Your task to perform on an android device: What's on my calendar today? Image 0: 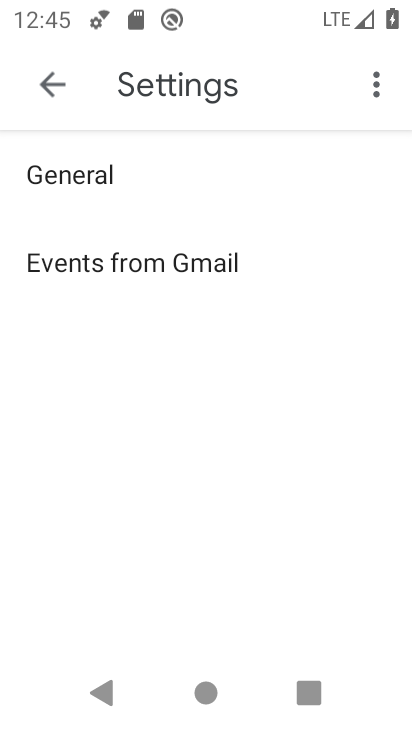
Step 0: press home button
Your task to perform on an android device: What's on my calendar today? Image 1: 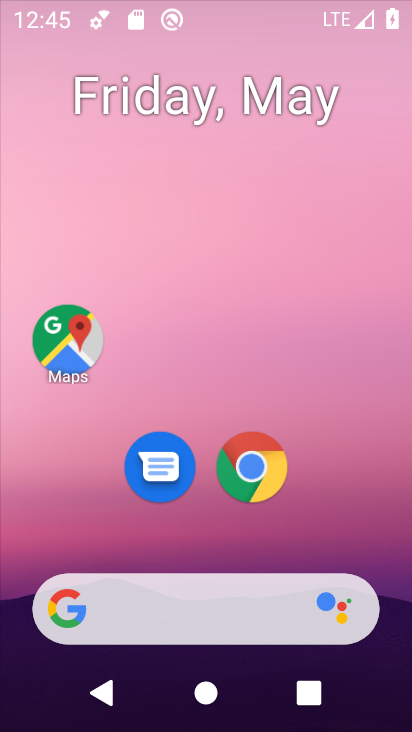
Step 1: drag from (361, 582) to (405, 66)
Your task to perform on an android device: What's on my calendar today? Image 2: 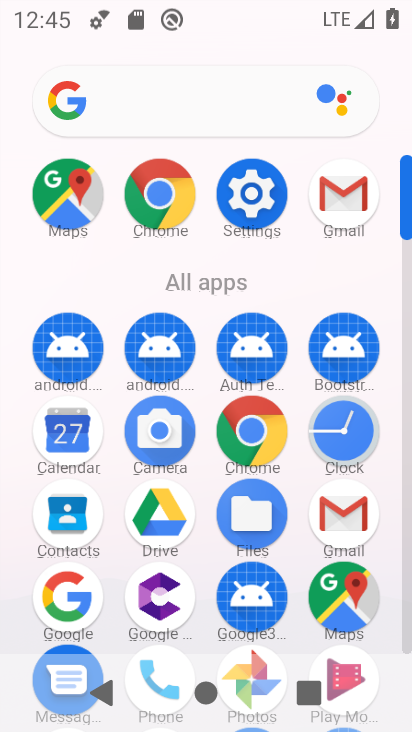
Step 2: click (82, 434)
Your task to perform on an android device: What's on my calendar today? Image 3: 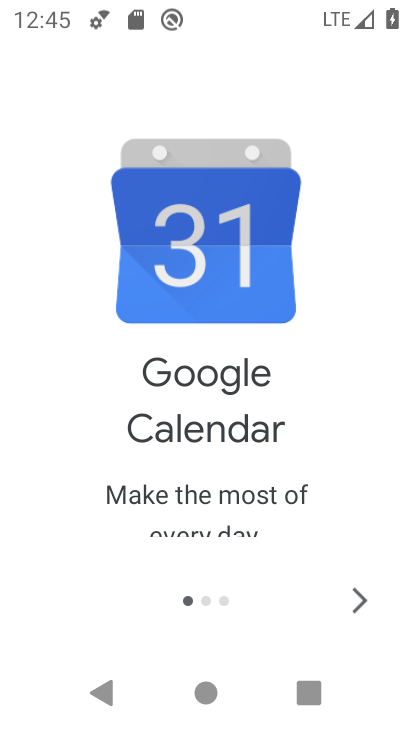
Step 3: click (362, 582)
Your task to perform on an android device: What's on my calendar today? Image 4: 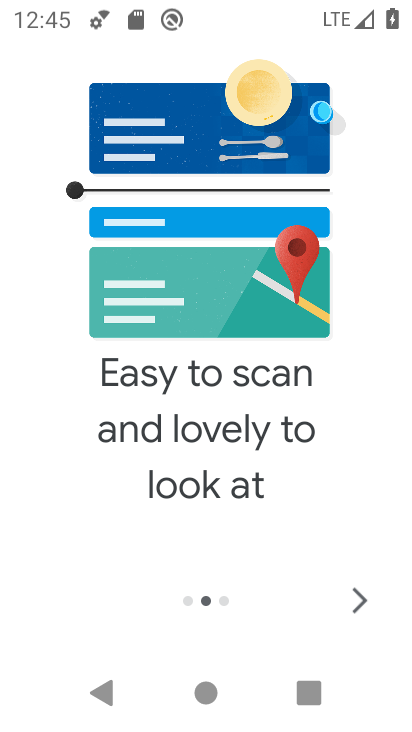
Step 4: click (374, 603)
Your task to perform on an android device: What's on my calendar today? Image 5: 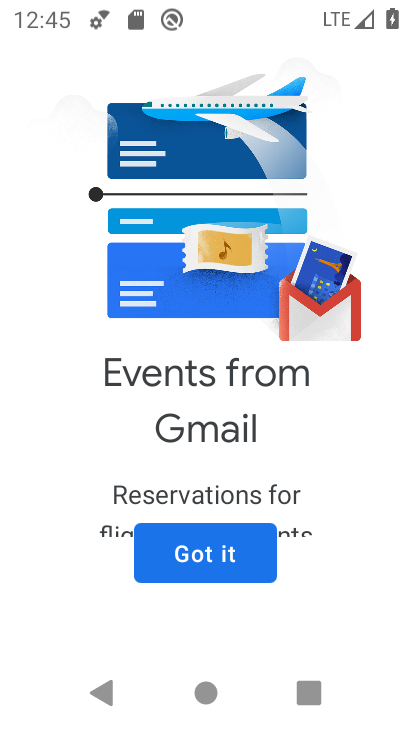
Step 5: click (216, 545)
Your task to perform on an android device: What's on my calendar today? Image 6: 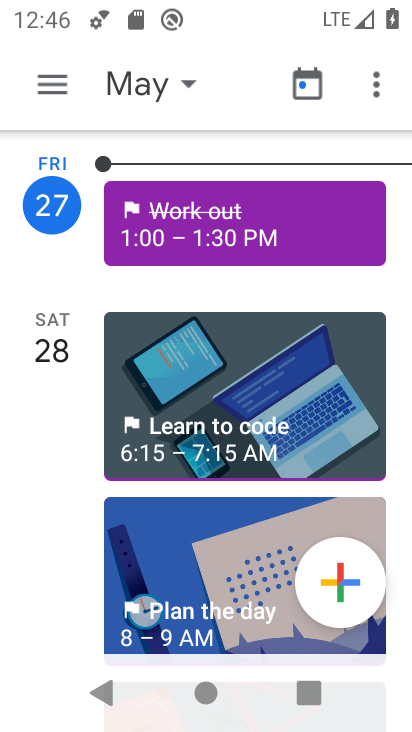
Step 6: click (155, 74)
Your task to perform on an android device: What's on my calendar today? Image 7: 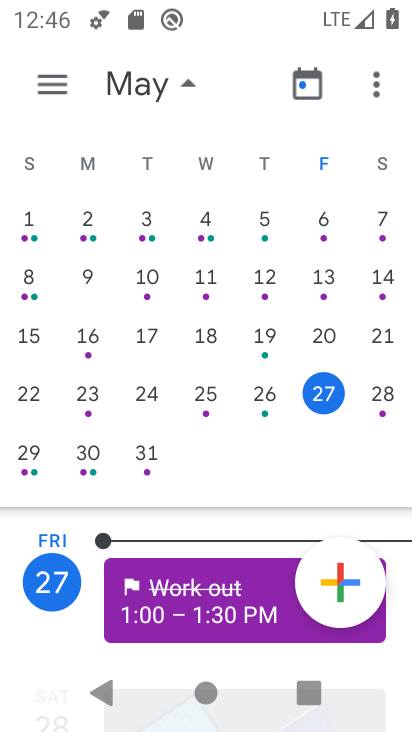
Step 7: task complete